Your task to perform on an android device: open app "Etsy: Buy & Sell Unique Items" (install if not already installed), go to login, and select forgot password Image 0: 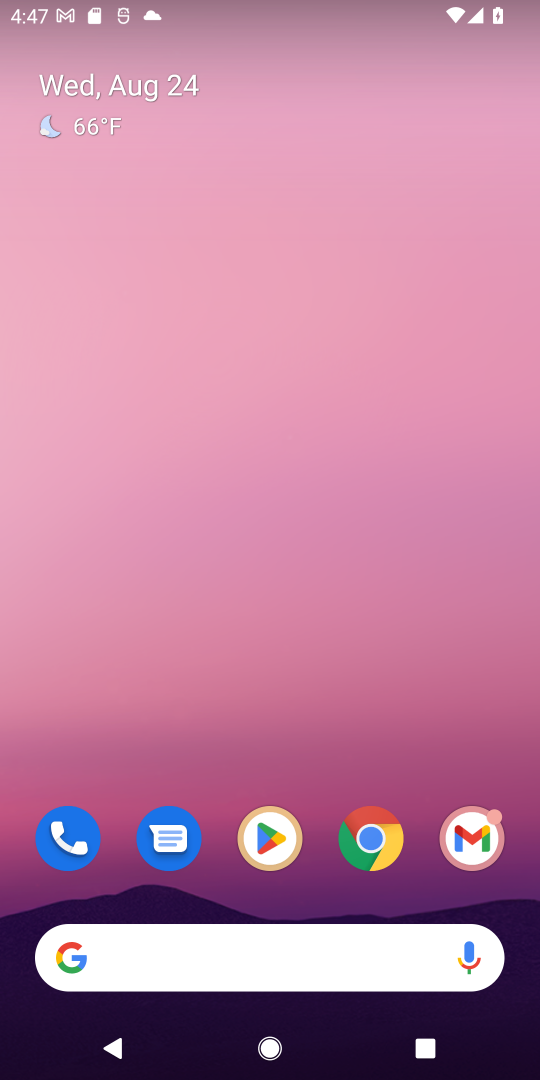
Step 0: press home button
Your task to perform on an android device: open app "Etsy: Buy & Sell Unique Items" (install if not already installed), go to login, and select forgot password Image 1: 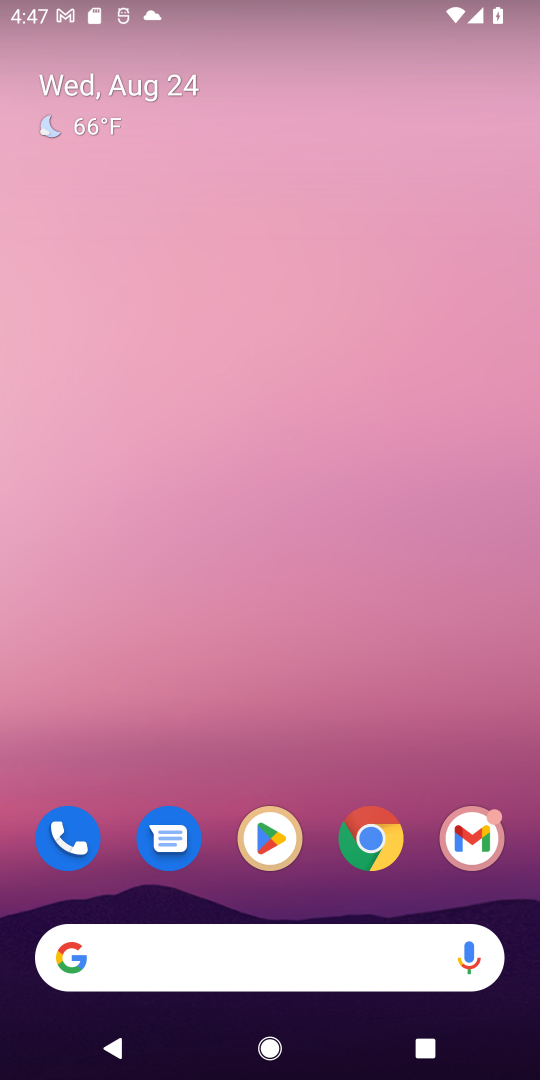
Step 1: click (273, 839)
Your task to perform on an android device: open app "Etsy: Buy & Sell Unique Items" (install if not already installed), go to login, and select forgot password Image 2: 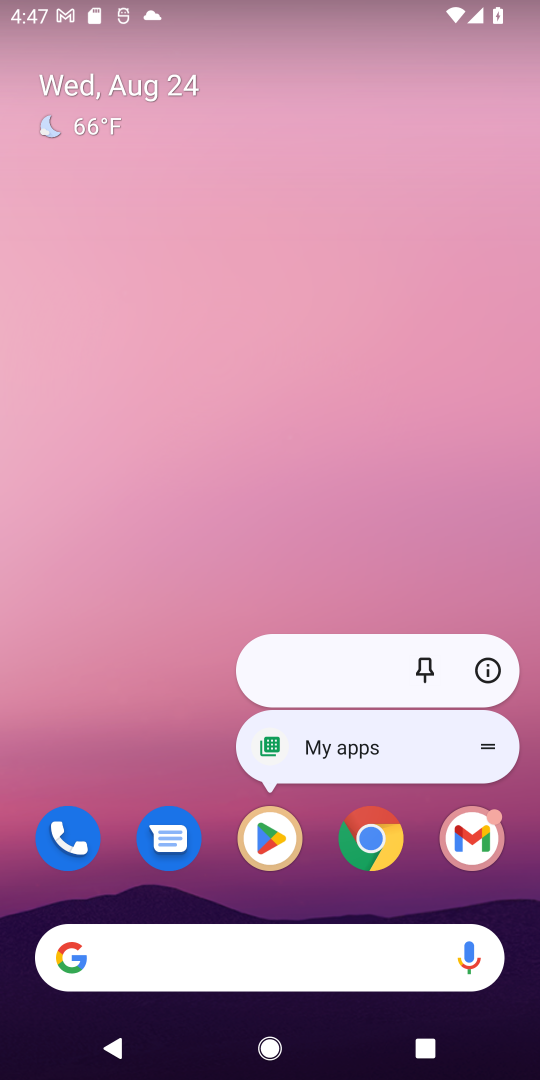
Step 2: click (264, 830)
Your task to perform on an android device: open app "Etsy: Buy & Sell Unique Items" (install if not already installed), go to login, and select forgot password Image 3: 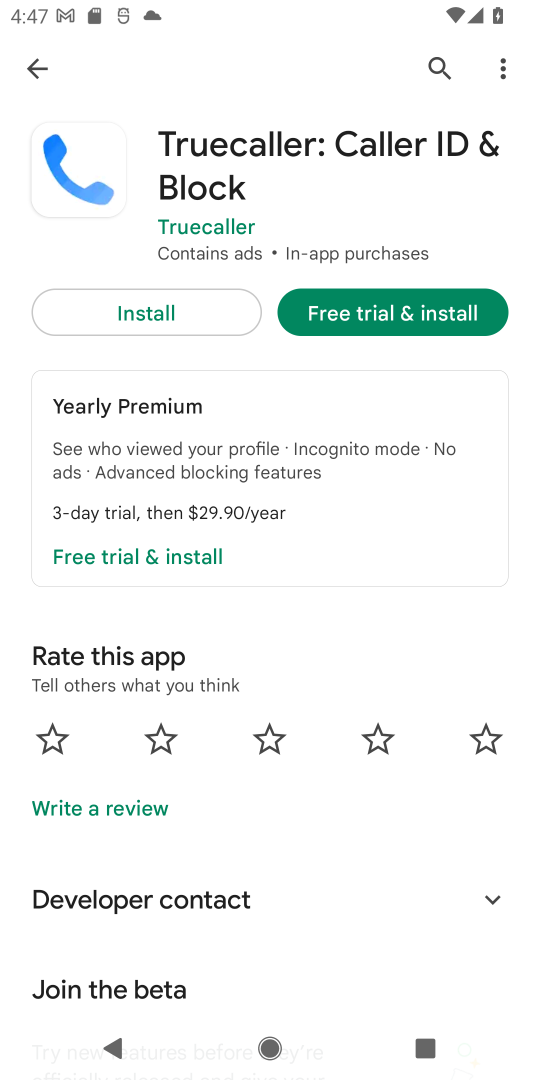
Step 3: click (53, 62)
Your task to perform on an android device: open app "Etsy: Buy & Sell Unique Items" (install if not already installed), go to login, and select forgot password Image 4: 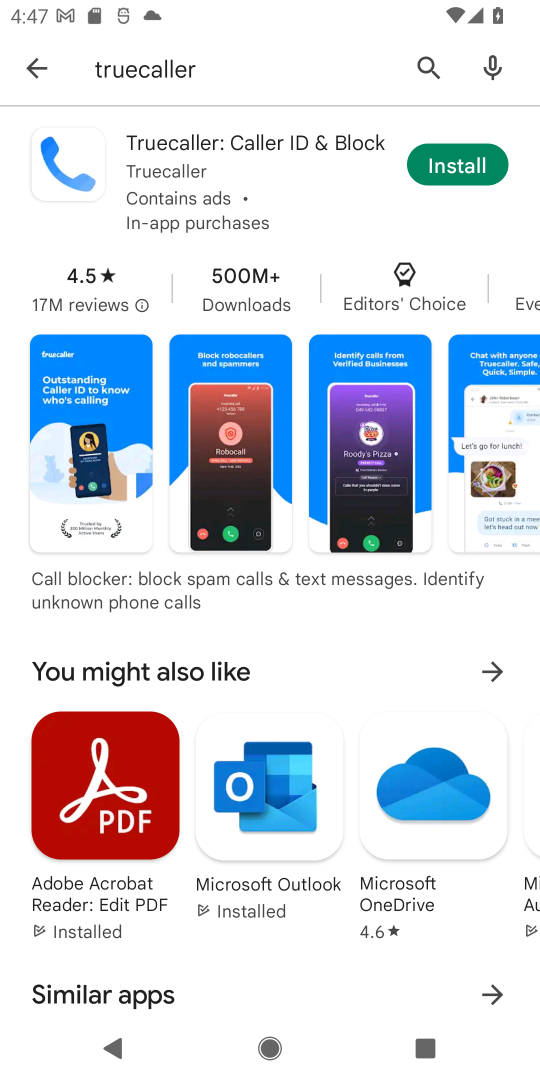
Step 4: click (418, 60)
Your task to perform on an android device: open app "Etsy: Buy & Sell Unique Items" (install if not already installed), go to login, and select forgot password Image 5: 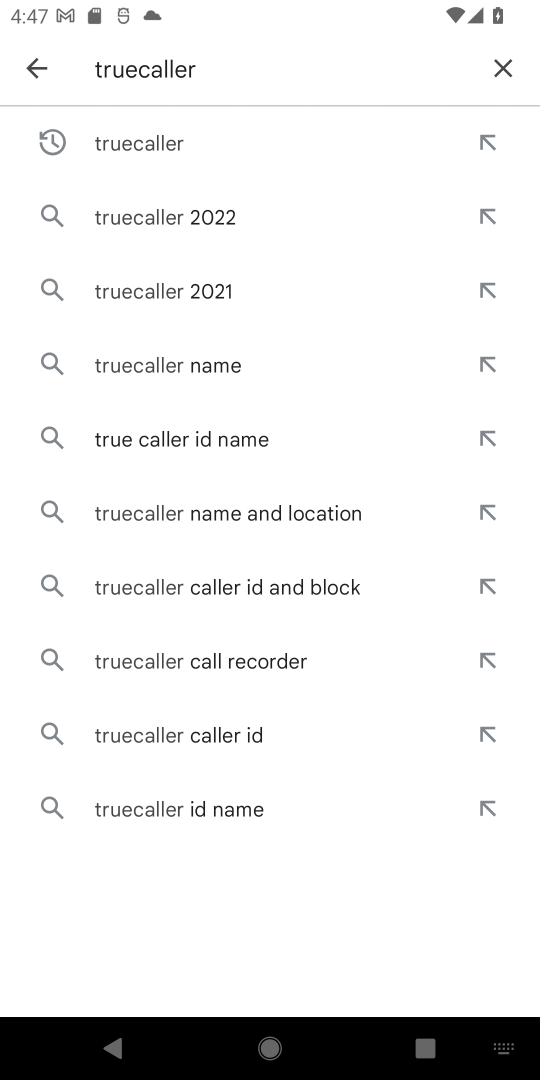
Step 5: click (502, 65)
Your task to perform on an android device: open app "Etsy: Buy & Sell Unique Items" (install if not already installed), go to login, and select forgot password Image 6: 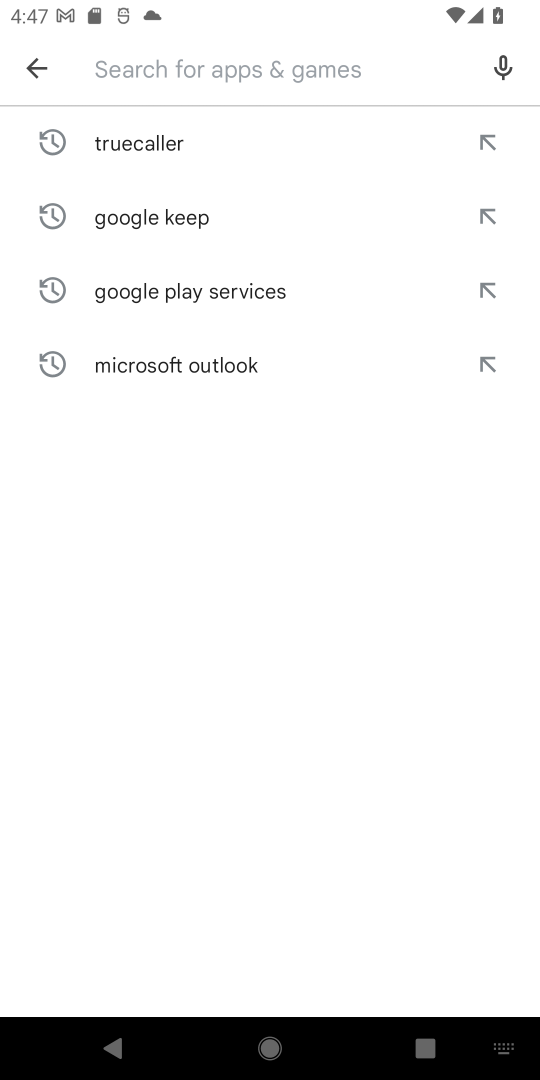
Step 6: type "Etsy: Buy & Sell Unique Items"
Your task to perform on an android device: open app "Etsy: Buy & Sell Unique Items" (install if not already installed), go to login, and select forgot password Image 7: 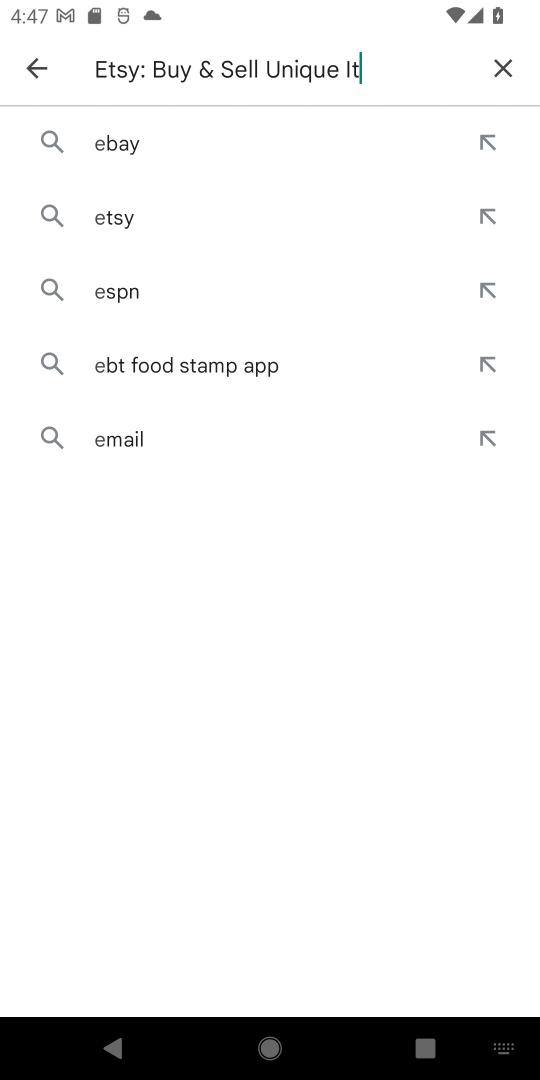
Step 7: type ""
Your task to perform on an android device: open app "Etsy: Buy & Sell Unique Items" (install if not already installed), go to login, and select forgot password Image 8: 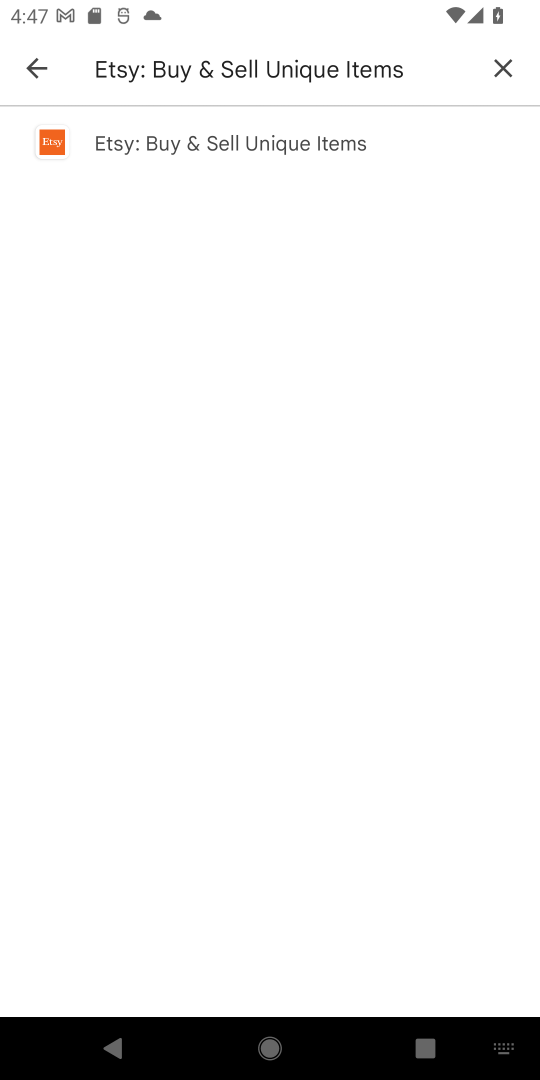
Step 8: click (176, 140)
Your task to perform on an android device: open app "Etsy: Buy & Sell Unique Items" (install if not already installed), go to login, and select forgot password Image 9: 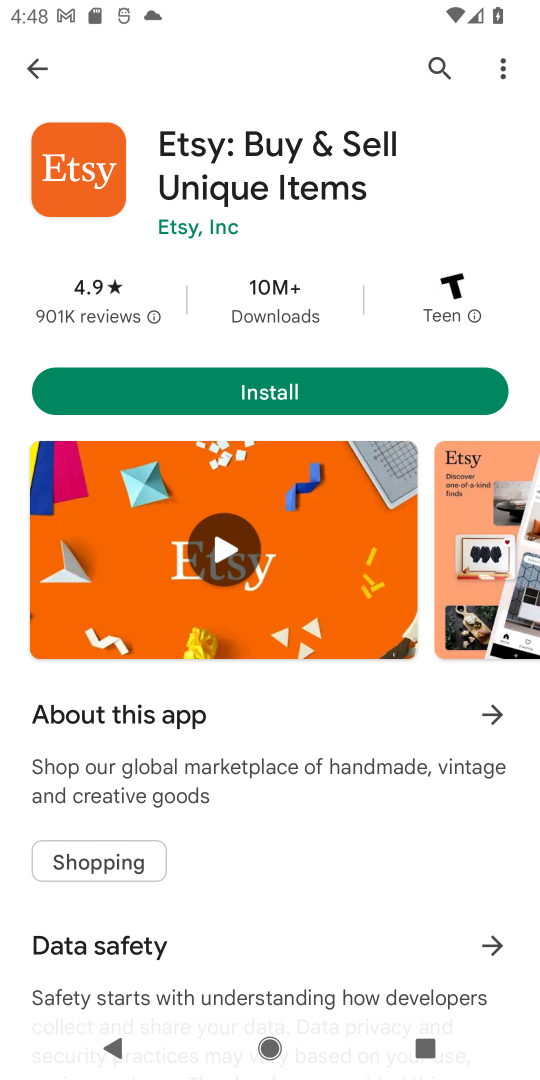
Step 9: click (274, 393)
Your task to perform on an android device: open app "Etsy: Buy & Sell Unique Items" (install if not already installed), go to login, and select forgot password Image 10: 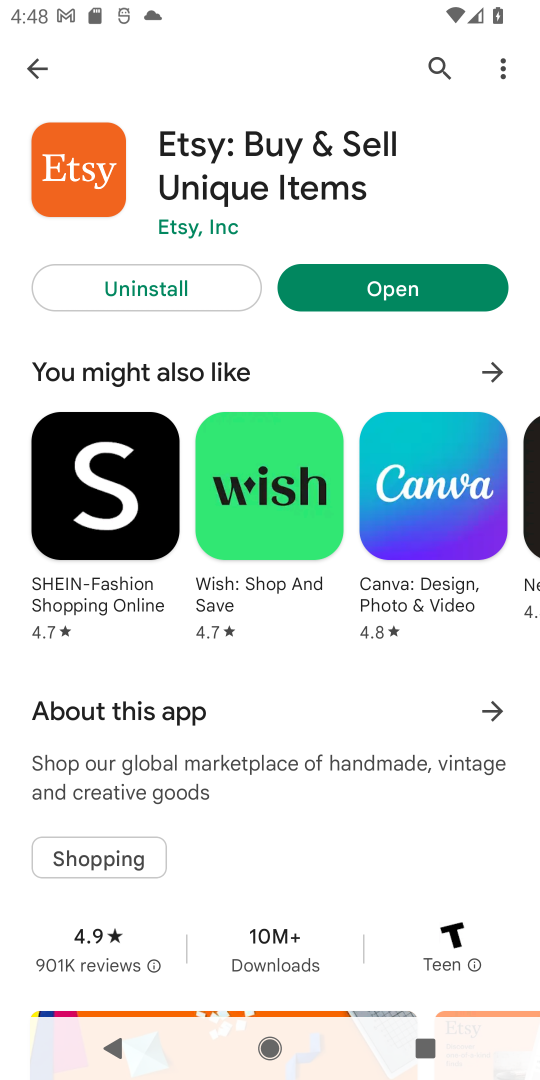
Step 10: click (396, 284)
Your task to perform on an android device: open app "Etsy: Buy & Sell Unique Items" (install if not already installed), go to login, and select forgot password Image 11: 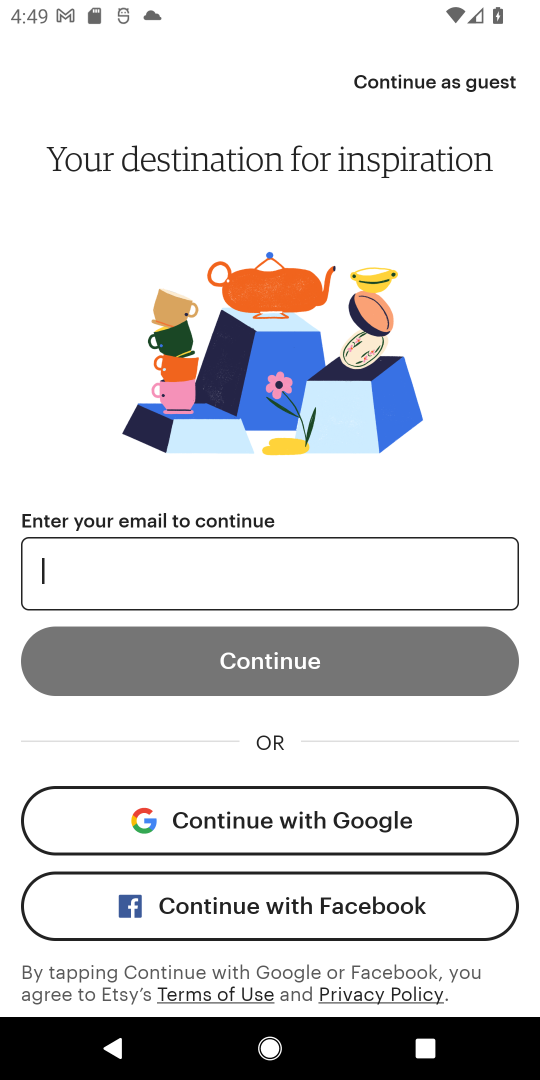
Step 11: type "fdgsdfffffd@gmail.com"
Your task to perform on an android device: open app "Etsy: Buy & Sell Unique Items" (install if not already installed), go to login, and select forgot password Image 12: 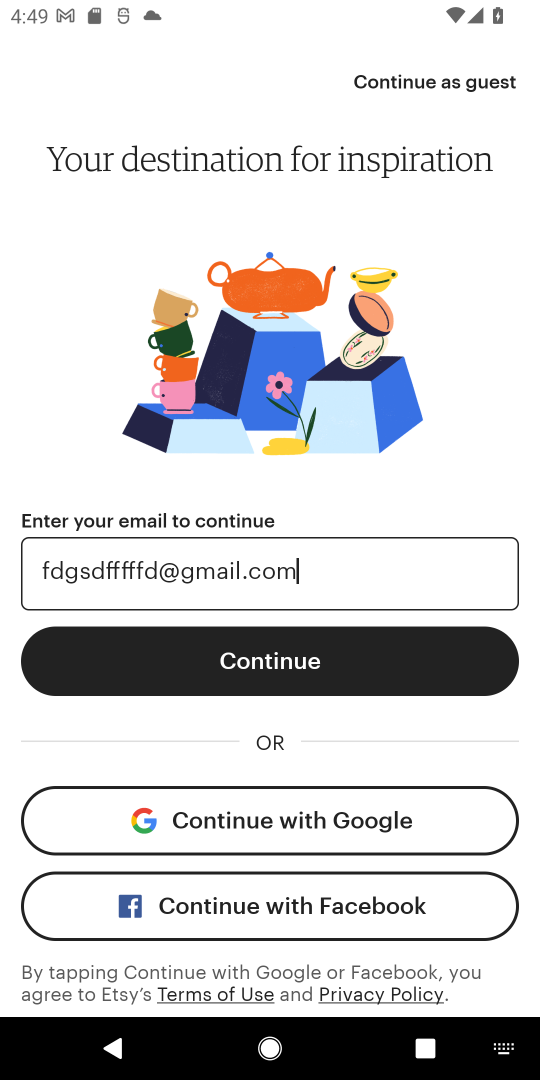
Step 12: click (286, 658)
Your task to perform on an android device: open app "Etsy: Buy & Sell Unique Items" (install if not already installed), go to login, and select forgot password Image 13: 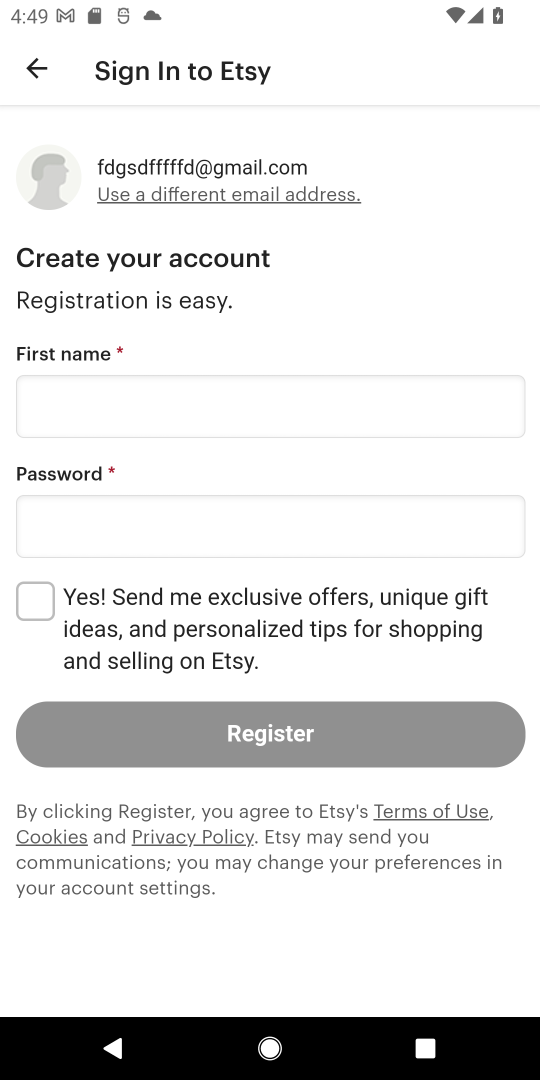
Step 13: task complete